Your task to perform on an android device: stop showing notifications on the lock screen Image 0: 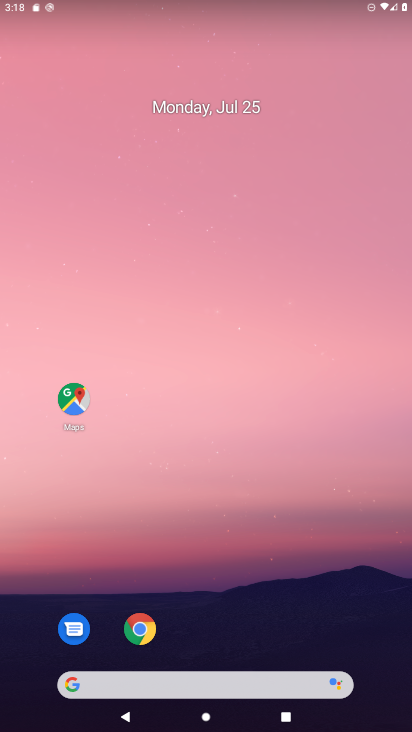
Step 0: drag from (256, 630) to (261, 7)
Your task to perform on an android device: stop showing notifications on the lock screen Image 1: 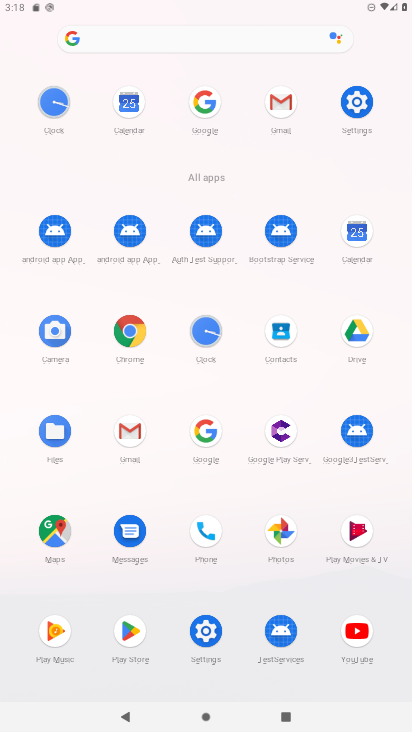
Step 1: click (371, 111)
Your task to perform on an android device: stop showing notifications on the lock screen Image 2: 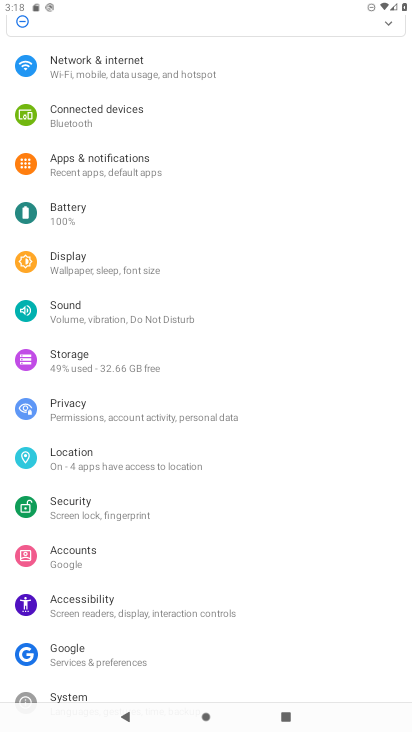
Step 2: click (107, 168)
Your task to perform on an android device: stop showing notifications on the lock screen Image 3: 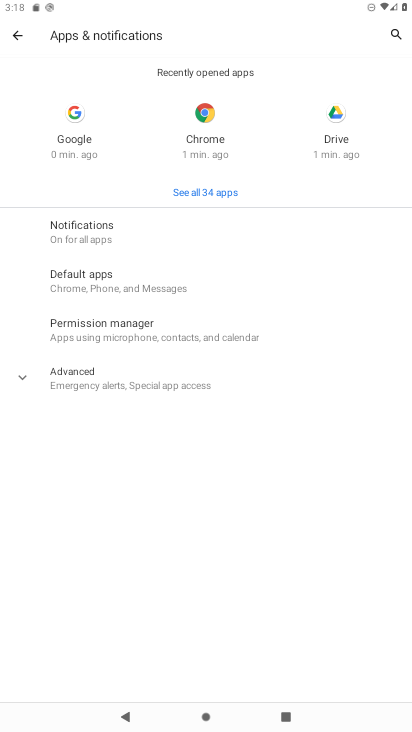
Step 3: click (86, 220)
Your task to perform on an android device: stop showing notifications on the lock screen Image 4: 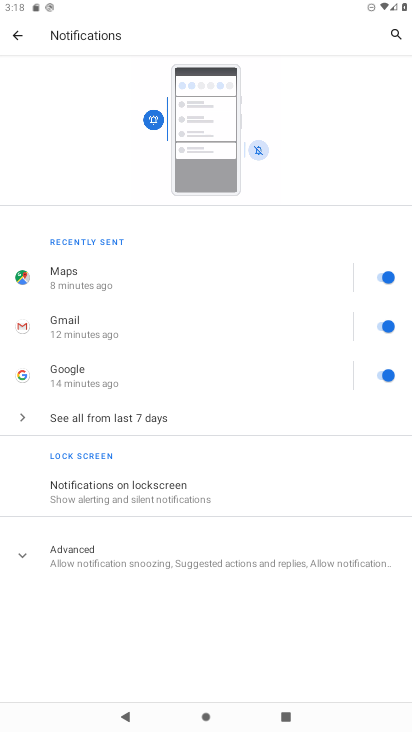
Step 4: click (123, 491)
Your task to perform on an android device: stop showing notifications on the lock screen Image 5: 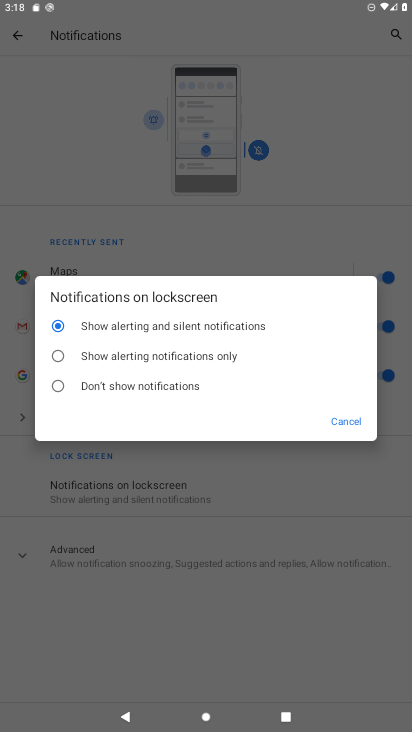
Step 5: click (149, 390)
Your task to perform on an android device: stop showing notifications on the lock screen Image 6: 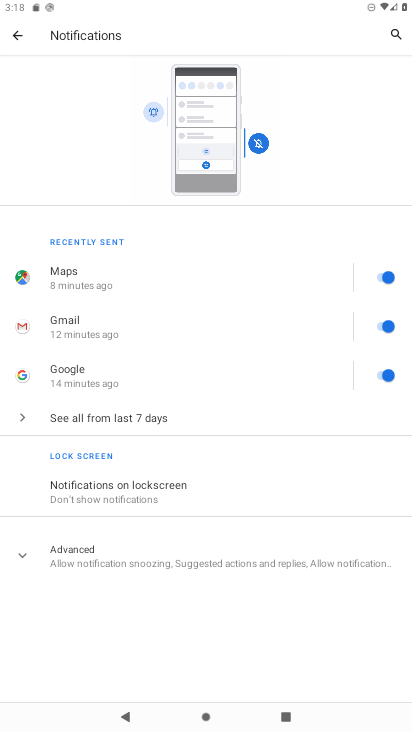
Step 6: task complete